Your task to perform on an android device: turn off javascript in the chrome app Image 0: 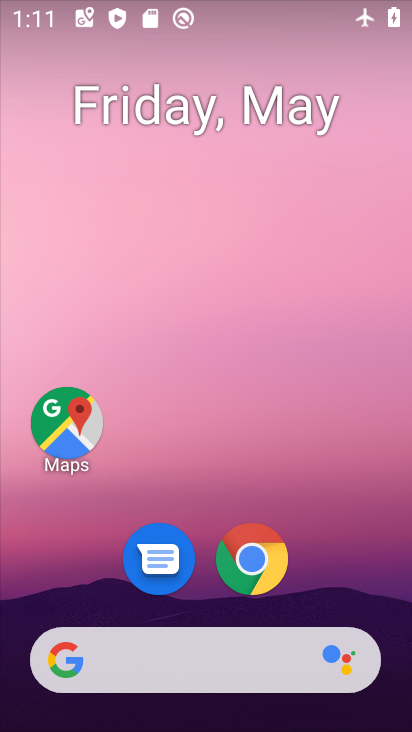
Step 0: click (261, 559)
Your task to perform on an android device: turn off javascript in the chrome app Image 1: 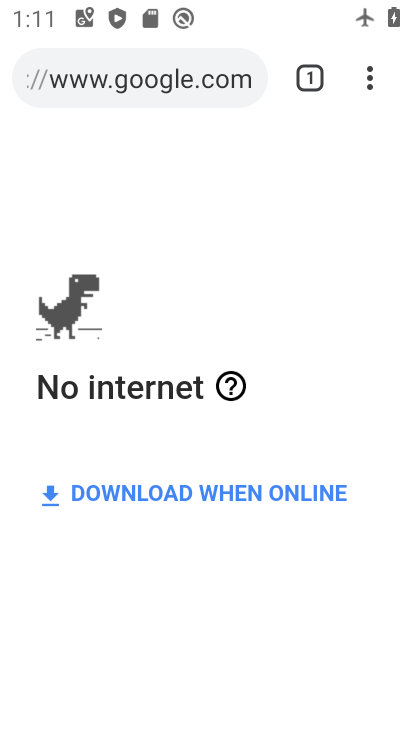
Step 1: drag from (367, 76) to (130, 606)
Your task to perform on an android device: turn off javascript in the chrome app Image 2: 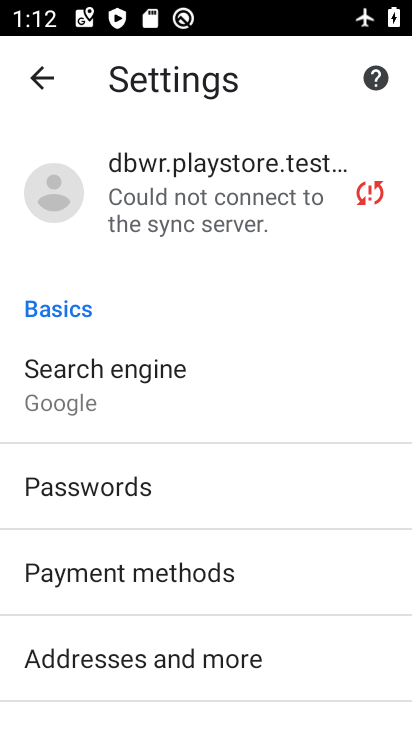
Step 2: drag from (132, 594) to (128, 189)
Your task to perform on an android device: turn off javascript in the chrome app Image 3: 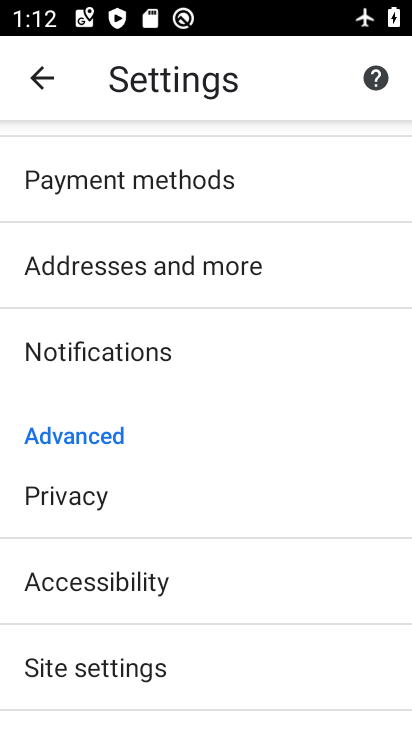
Step 3: drag from (76, 565) to (110, 388)
Your task to perform on an android device: turn off javascript in the chrome app Image 4: 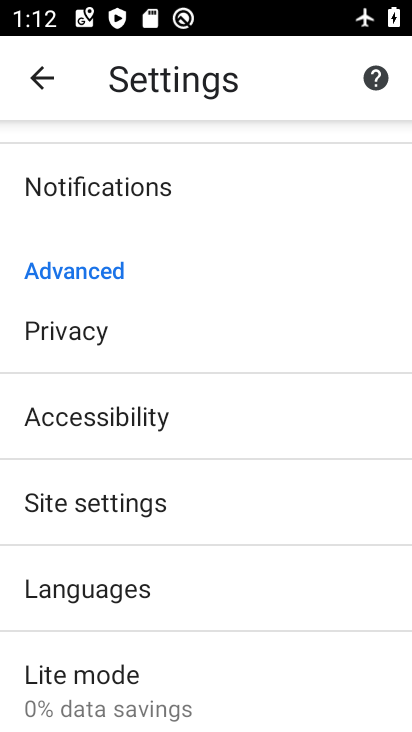
Step 4: drag from (255, 621) to (281, 370)
Your task to perform on an android device: turn off javascript in the chrome app Image 5: 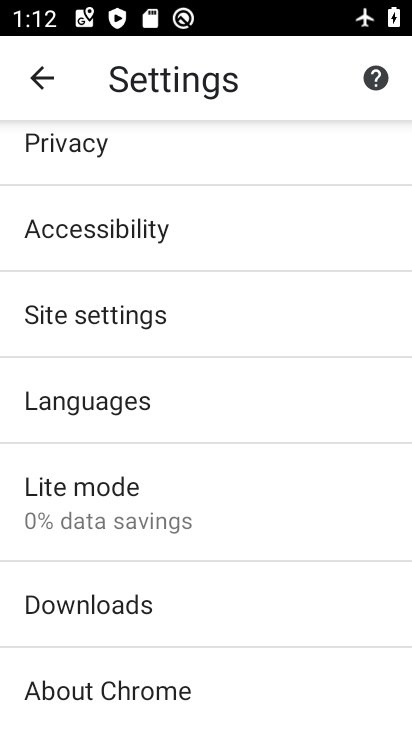
Step 5: click (102, 329)
Your task to perform on an android device: turn off javascript in the chrome app Image 6: 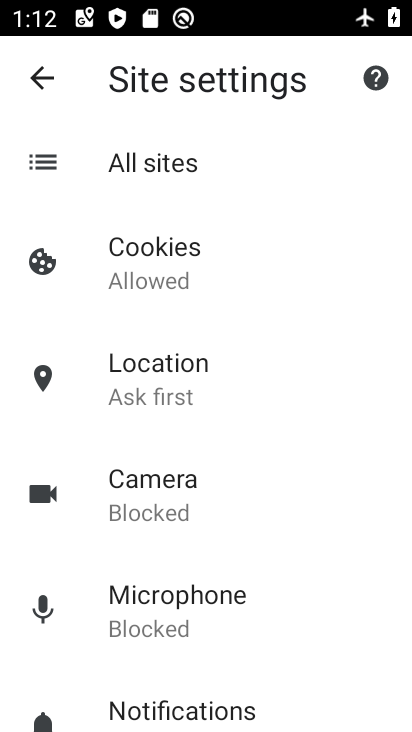
Step 6: drag from (152, 501) to (118, 240)
Your task to perform on an android device: turn off javascript in the chrome app Image 7: 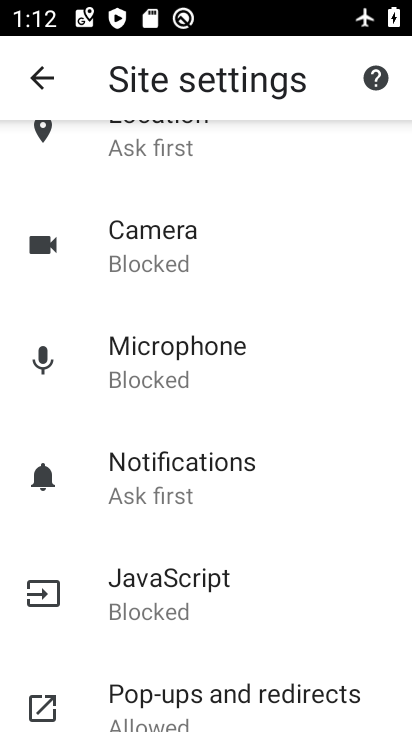
Step 7: click (149, 609)
Your task to perform on an android device: turn off javascript in the chrome app Image 8: 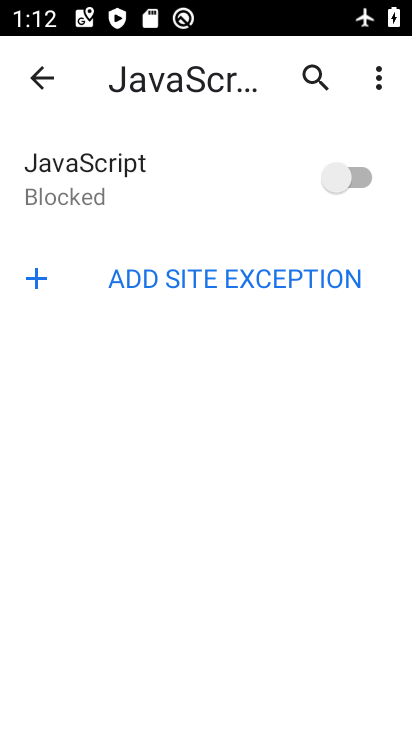
Step 8: task complete